Your task to perform on an android device: uninstall "Upside-Cash back on gas & food" Image 0: 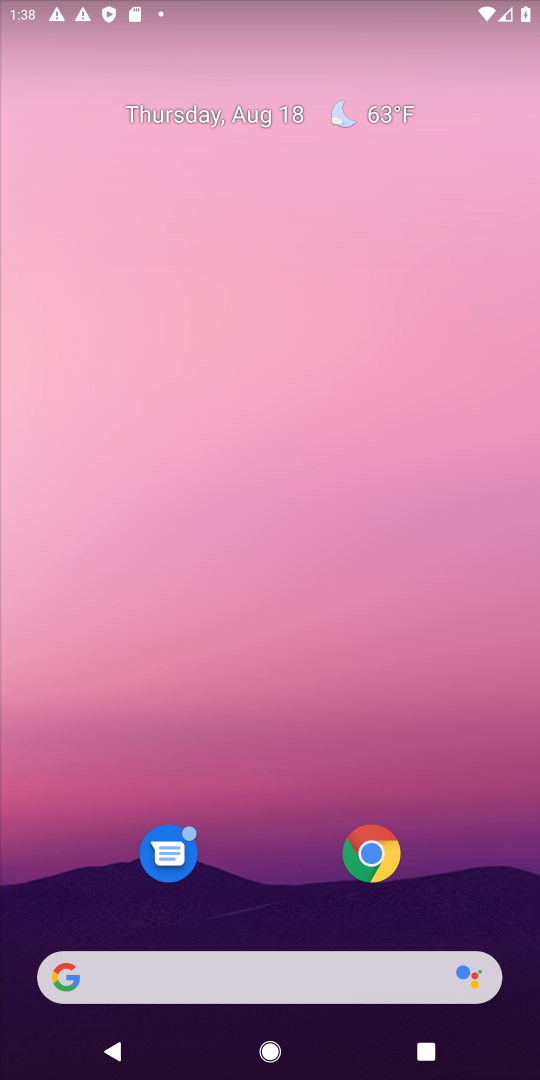
Step 0: drag from (462, 855) to (195, 51)
Your task to perform on an android device: uninstall "Upside-Cash back on gas & food" Image 1: 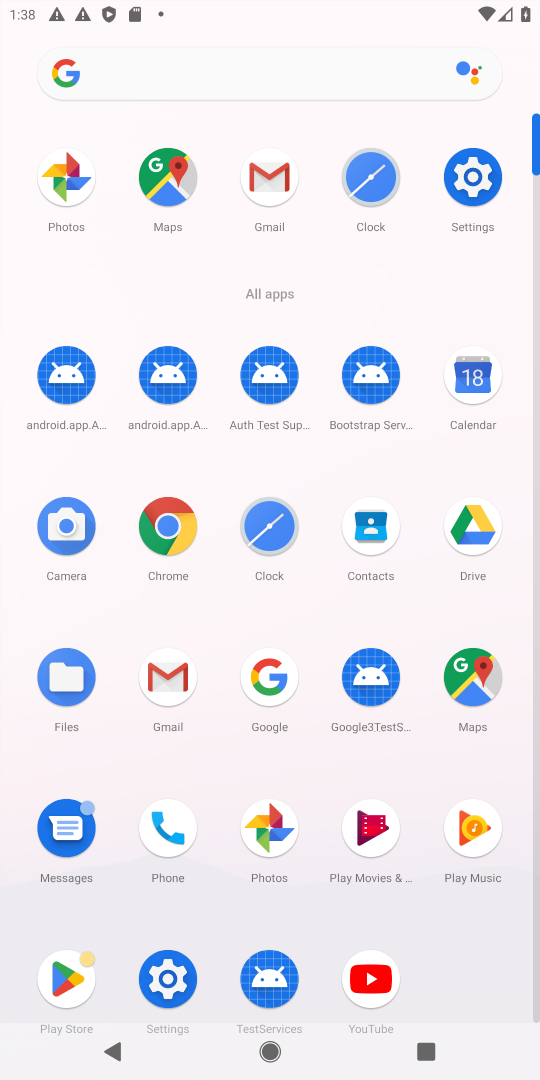
Step 1: click (56, 987)
Your task to perform on an android device: uninstall "Upside-Cash back on gas & food" Image 2: 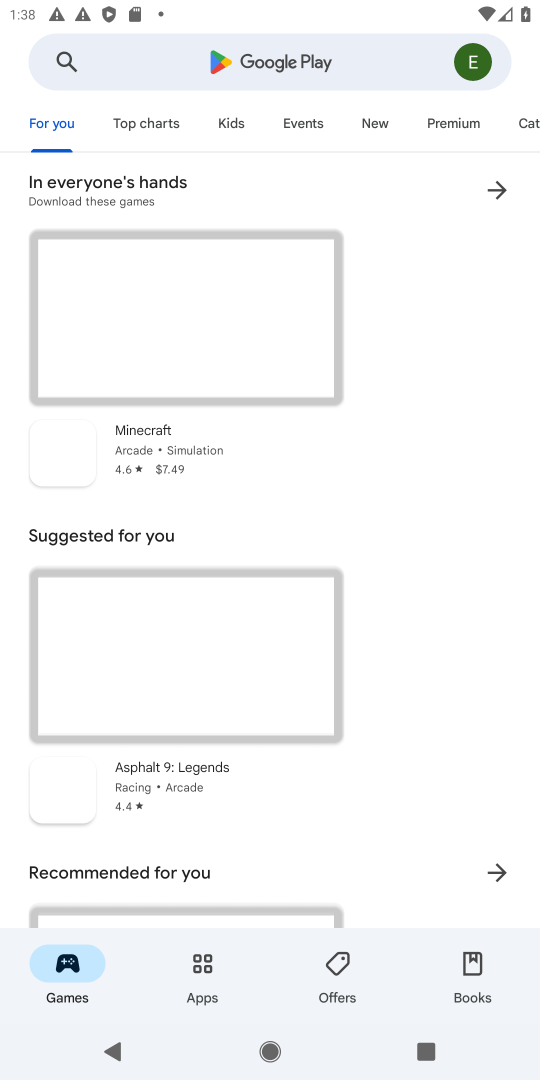
Step 2: click (207, 64)
Your task to perform on an android device: uninstall "Upside-Cash back on gas & food" Image 3: 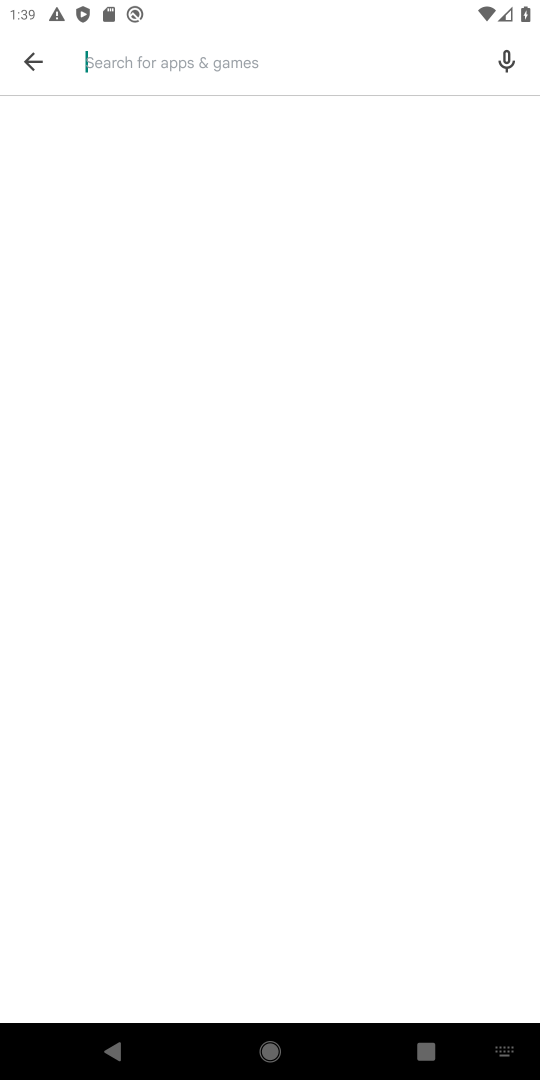
Step 3: type "Upside-Cash back on gas & food"
Your task to perform on an android device: uninstall "Upside-Cash back on gas & food" Image 4: 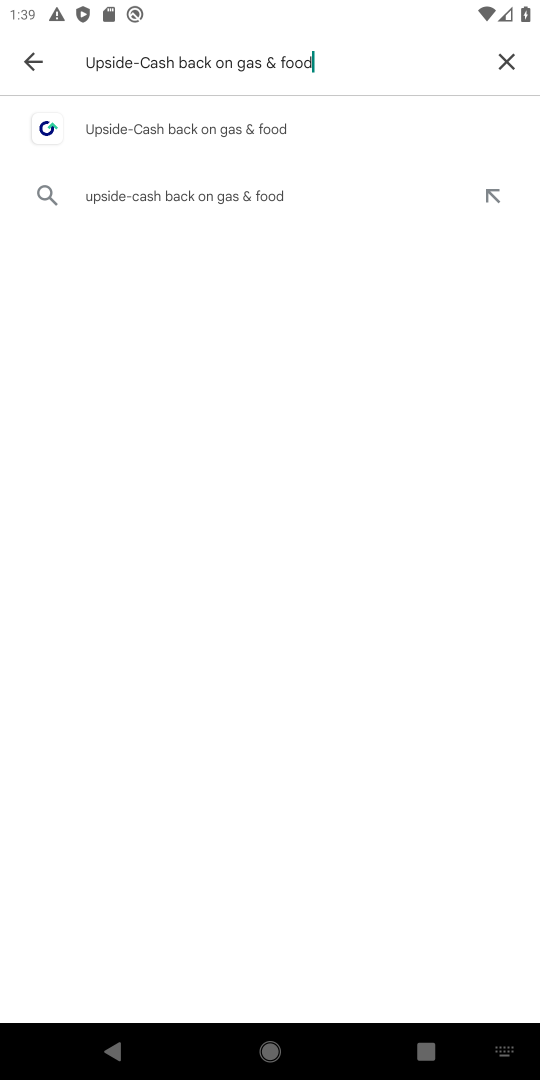
Step 4: click (167, 139)
Your task to perform on an android device: uninstall "Upside-Cash back on gas & food" Image 5: 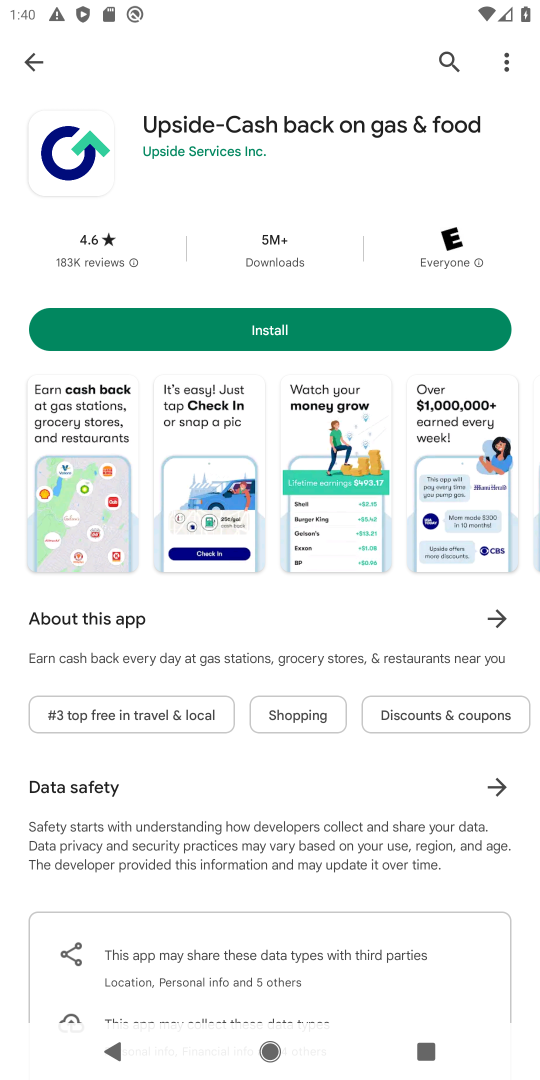
Step 5: task complete